Your task to perform on an android device: Open wifi settings Image 0: 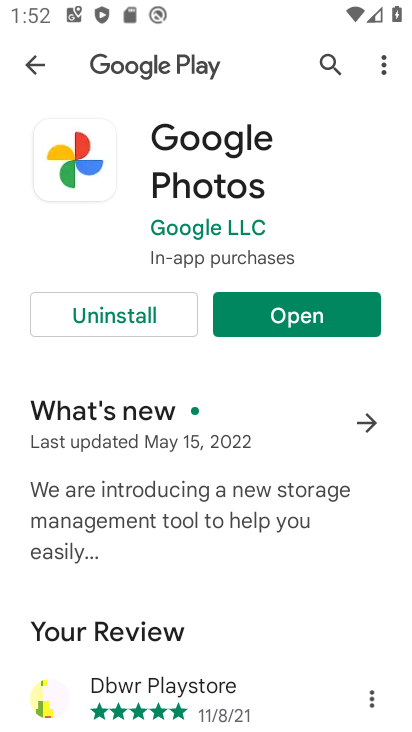
Step 0: drag from (260, 474) to (327, 174)
Your task to perform on an android device: Open wifi settings Image 1: 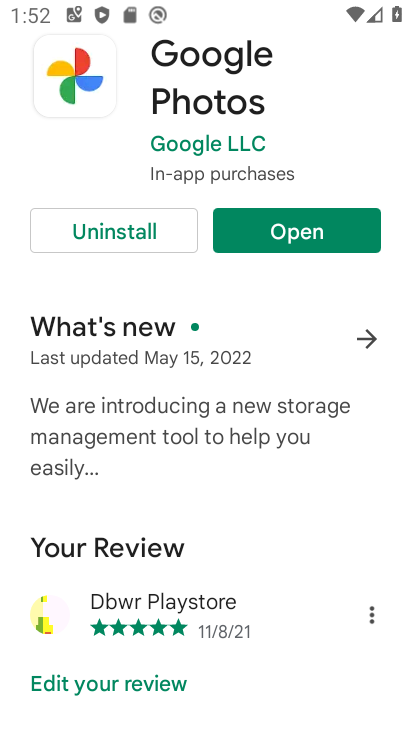
Step 1: press home button
Your task to perform on an android device: Open wifi settings Image 2: 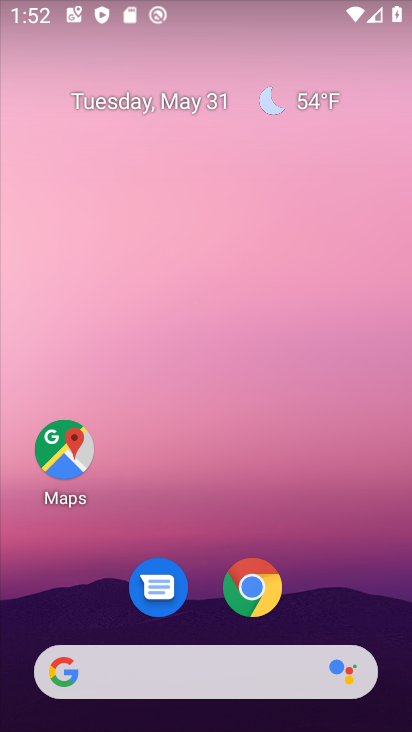
Step 2: drag from (183, 606) to (178, 236)
Your task to perform on an android device: Open wifi settings Image 3: 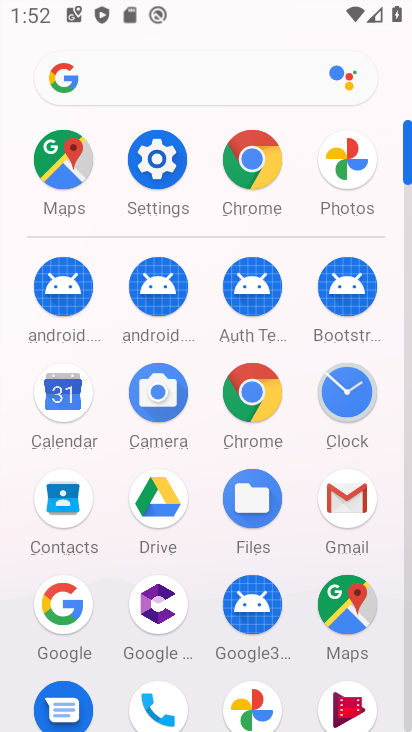
Step 3: click (148, 151)
Your task to perform on an android device: Open wifi settings Image 4: 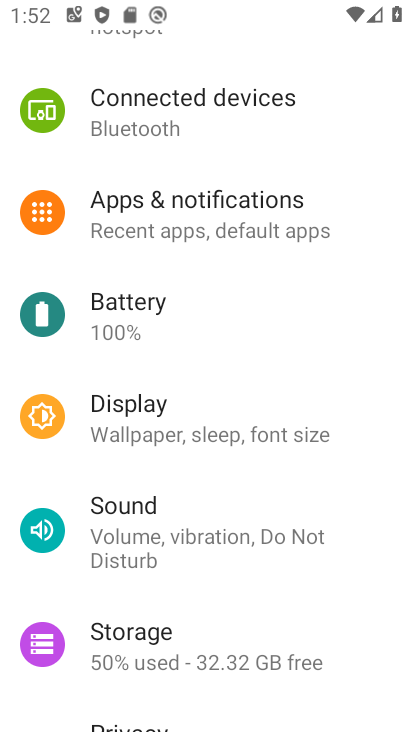
Step 4: drag from (175, 110) to (260, 726)
Your task to perform on an android device: Open wifi settings Image 5: 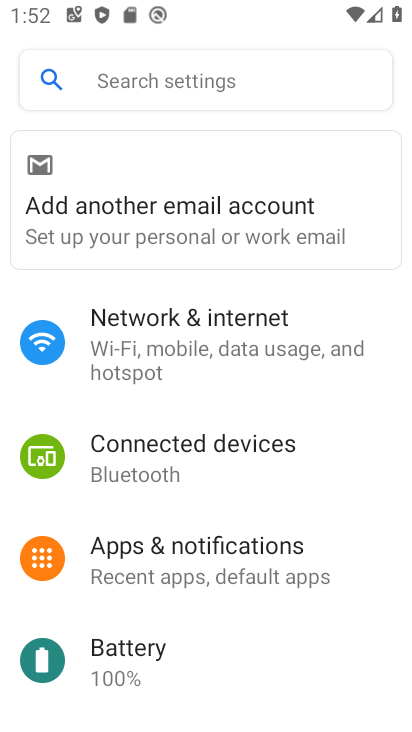
Step 5: click (140, 317)
Your task to perform on an android device: Open wifi settings Image 6: 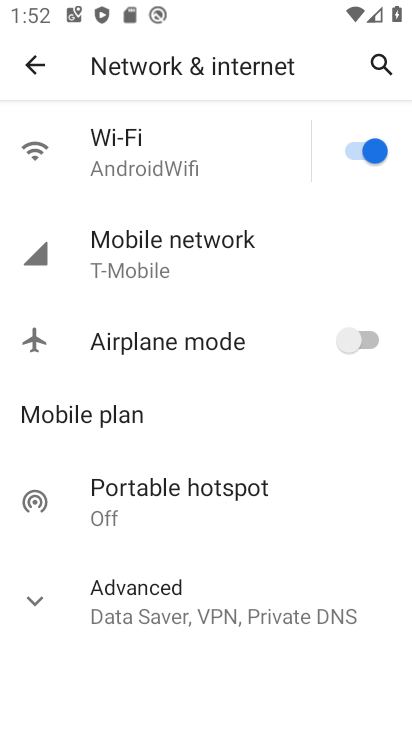
Step 6: click (150, 171)
Your task to perform on an android device: Open wifi settings Image 7: 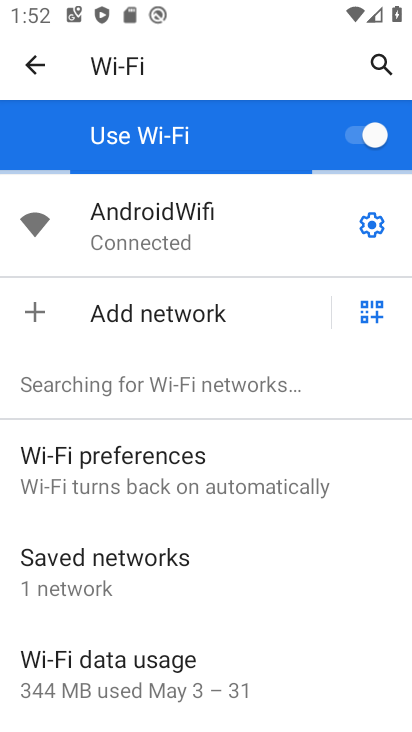
Step 7: drag from (190, 532) to (254, 278)
Your task to perform on an android device: Open wifi settings Image 8: 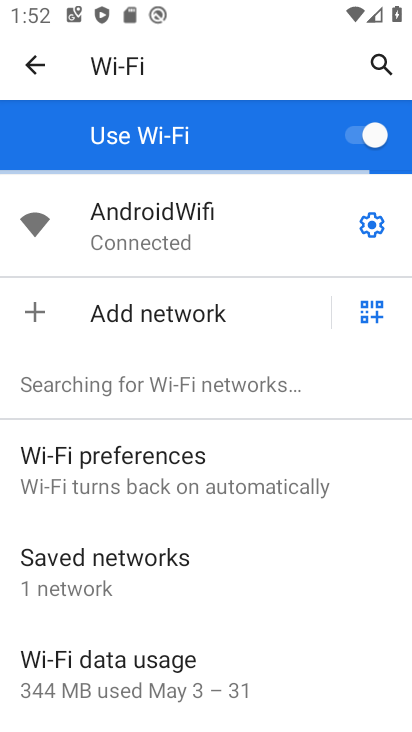
Step 8: click (371, 231)
Your task to perform on an android device: Open wifi settings Image 9: 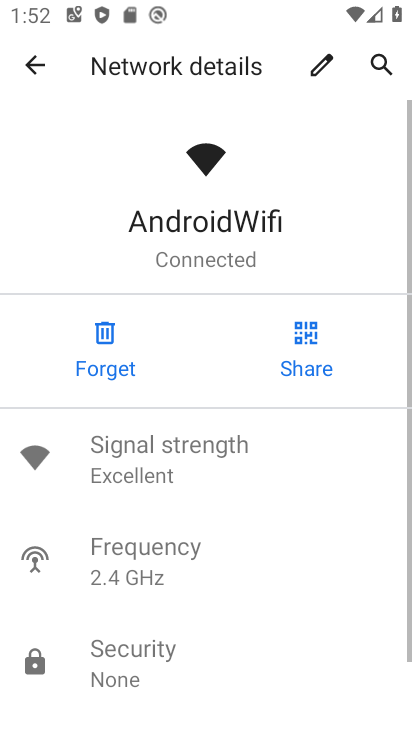
Step 9: task complete